Your task to perform on an android device: Show me productivity apps on the Play Store Image 0: 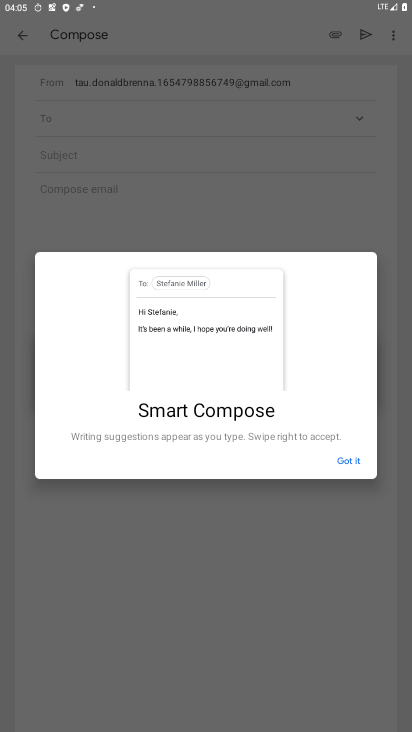
Step 0: press home button
Your task to perform on an android device: Show me productivity apps on the Play Store Image 1: 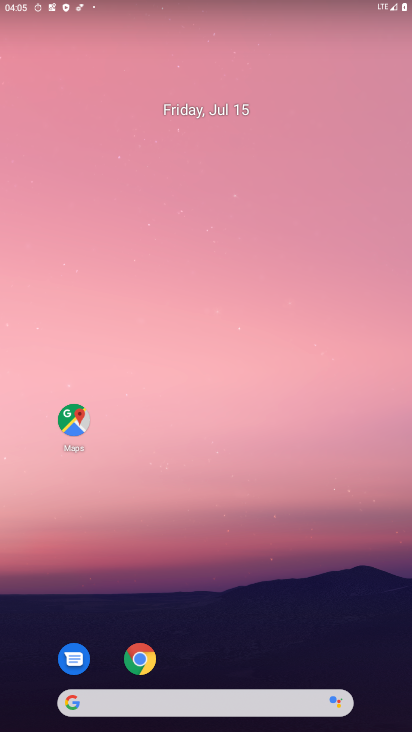
Step 1: drag from (216, 600) to (286, 42)
Your task to perform on an android device: Show me productivity apps on the Play Store Image 2: 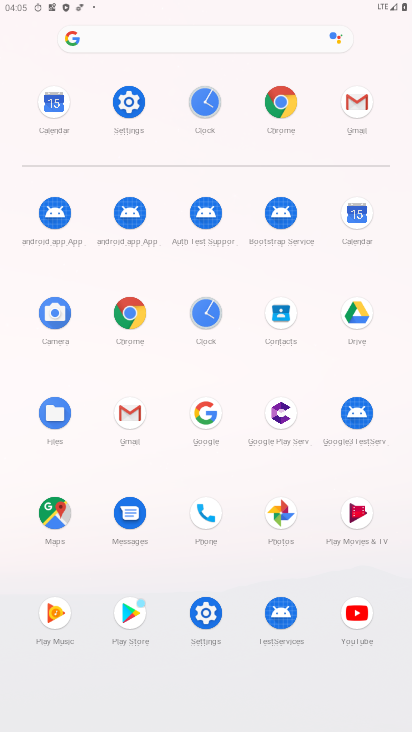
Step 2: click (128, 617)
Your task to perform on an android device: Show me productivity apps on the Play Store Image 3: 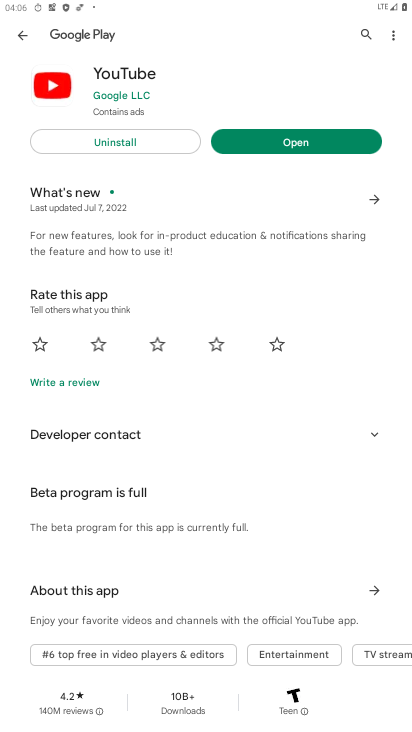
Step 3: click (21, 39)
Your task to perform on an android device: Show me productivity apps on the Play Store Image 4: 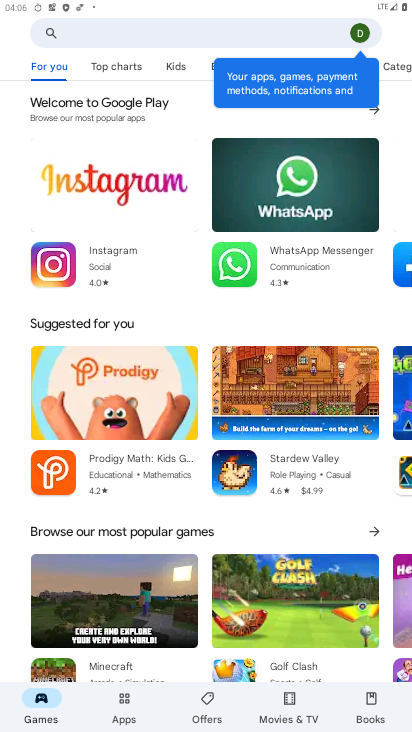
Step 4: click (131, 711)
Your task to perform on an android device: Show me productivity apps on the Play Store Image 5: 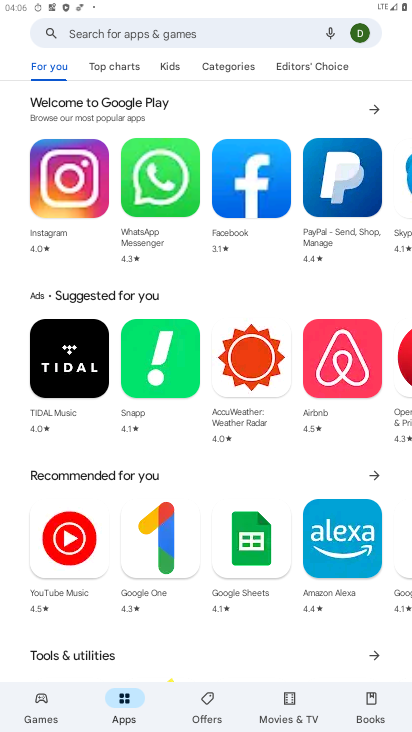
Step 5: click (221, 63)
Your task to perform on an android device: Show me productivity apps on the Play Store Image 6: 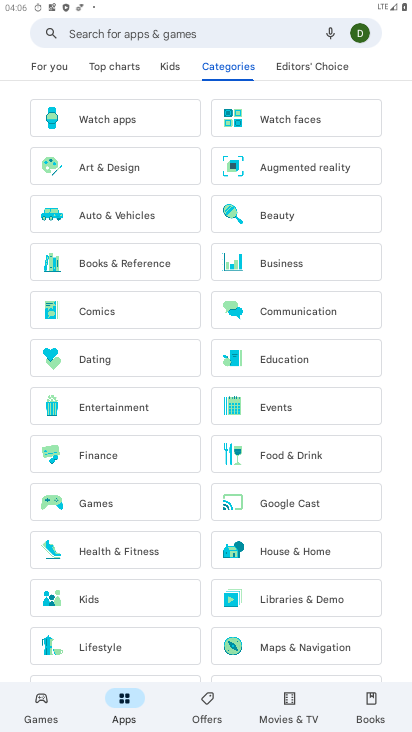
Step 6: drag from (205, 613) to (205, 382)
Your task to perform on an android device: Show me productivity apps on the Play Store Image 7: 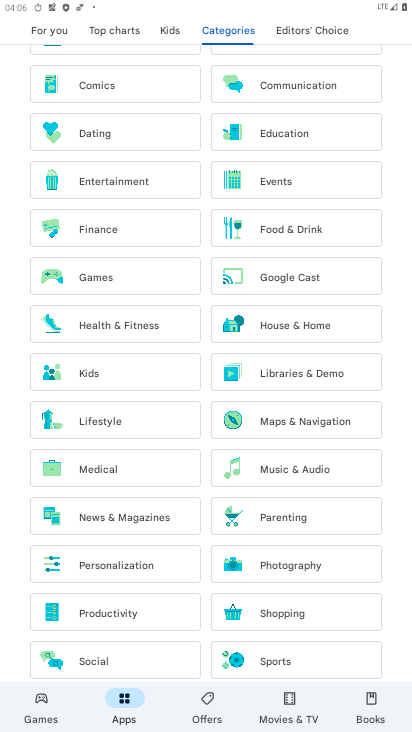
Step 7: click (118, 607)
Your task to perform on an android device: Show me productivity apps on the Play Store Image 8: 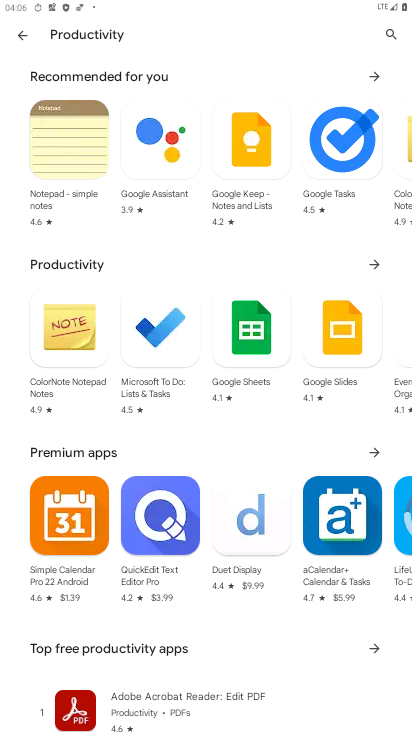
Step 8: task complete